Your task to perform on an android device: turn off notifications in google photos Image 0: 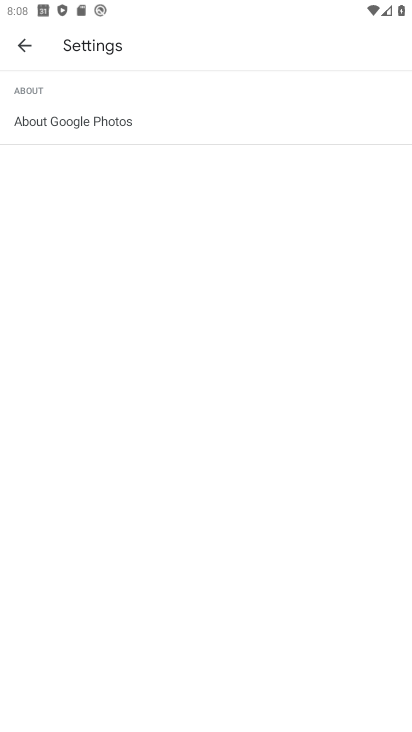
Step 0: press home button
Your task to perform on an android device: turn off notifications in google photos Image 1: 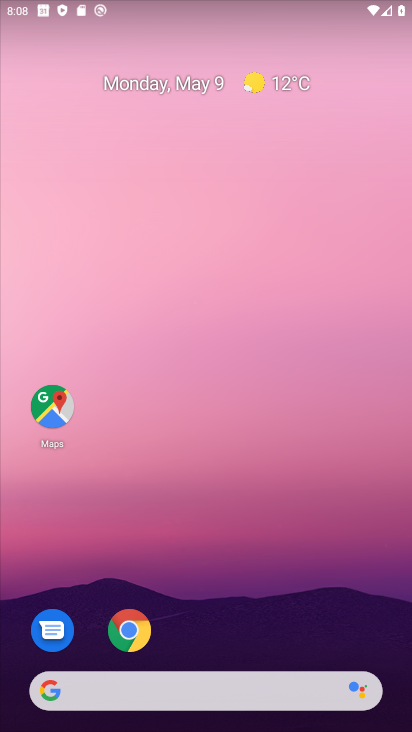
Step 1: drag from (221, 663) to (189, 174)
Your task to perform on an android device: turn off notifications in google photos Image 2: 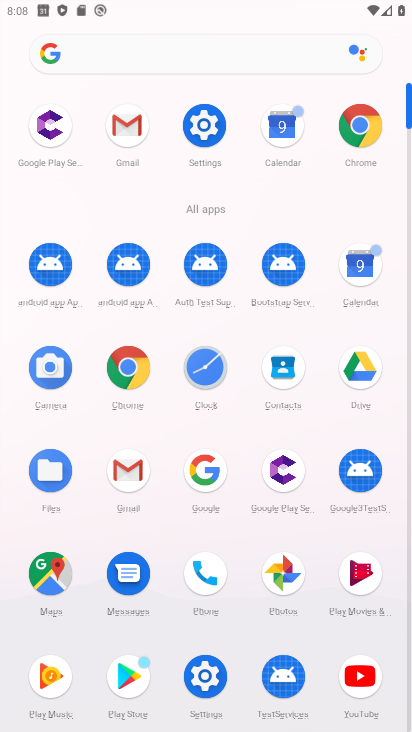
Step 2: click (267, 576)
Your task to perform on an android device: turn off notifications in google photos Image 3: 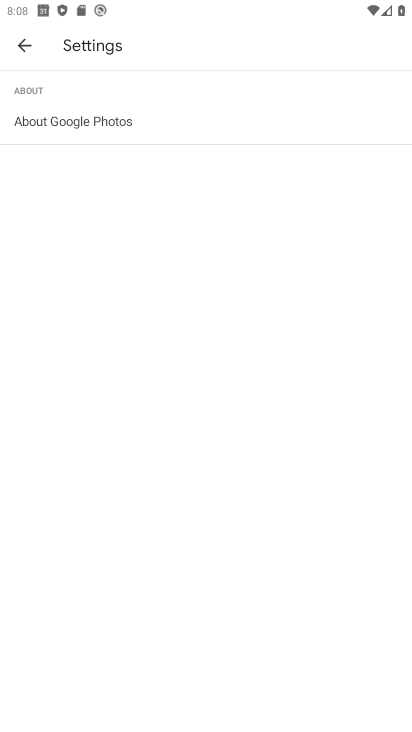
Step 3: click (13, 47)
Your task to perform on an android device: turn off notifications in google photos Image 4: 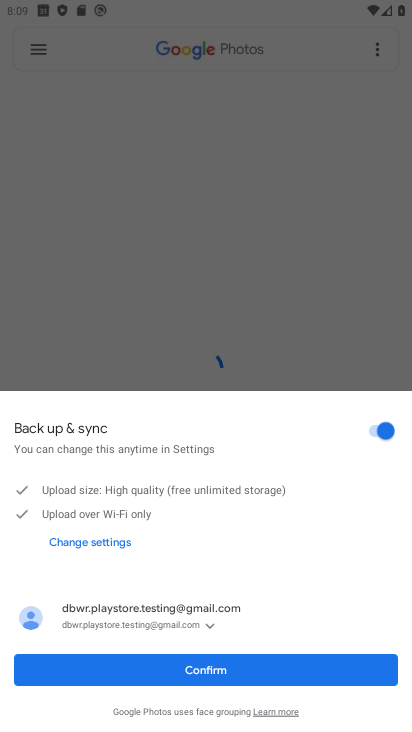
Step 4: click (207, 673)
Your task to perform on an android device: turn off notifications in google photos Image 5: 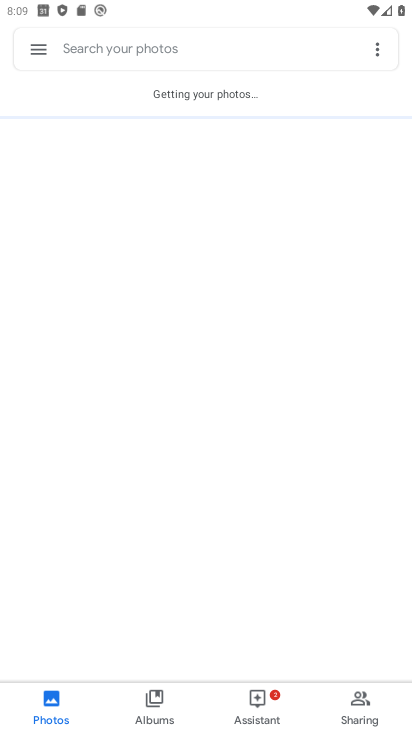
Step 5: click (36, 51)
Your task to perform on an android device: turn off notifications in google photos Image 6: 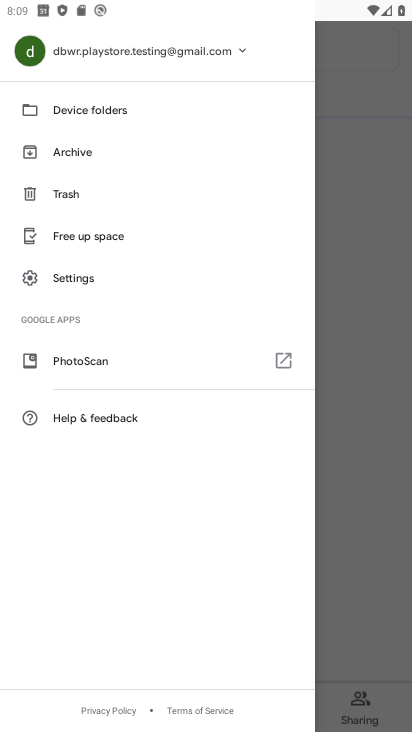
Step 6: click (93, 276)
Your task to perform on an android device: turn off notifications in google photos Image 7: 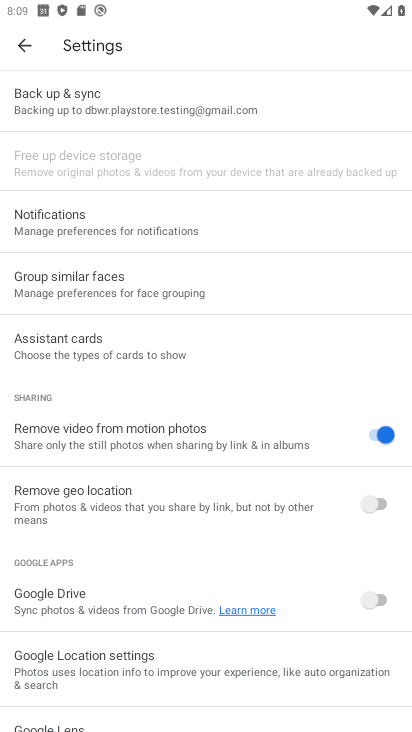
Step 7: click (92, 218)
Your task to perform on an android device: turn off notifications in google photos Image 8: 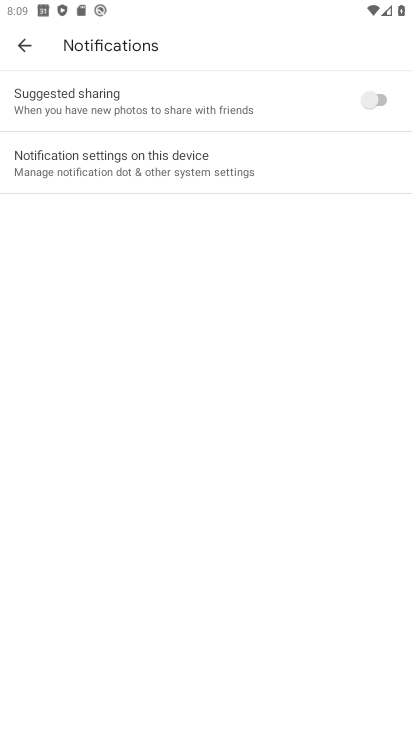
Step 8: click (135, 155)
Your task to perform on an android device: turn off notifications in google photos Image 9: 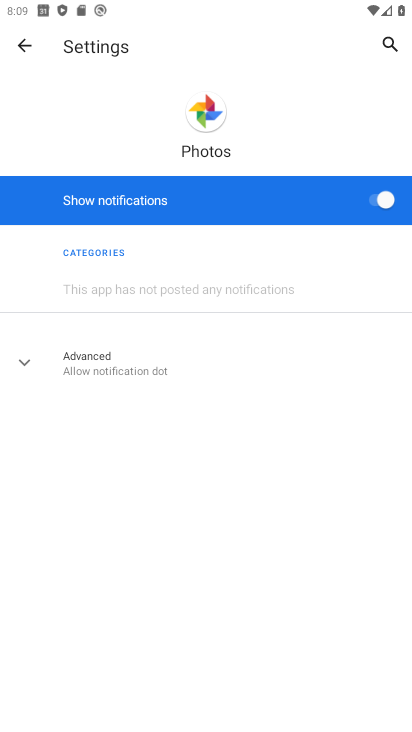
Step 9: click (379, 208)
Your task to perform on an android device: turn off notifications in google photos Image 10: 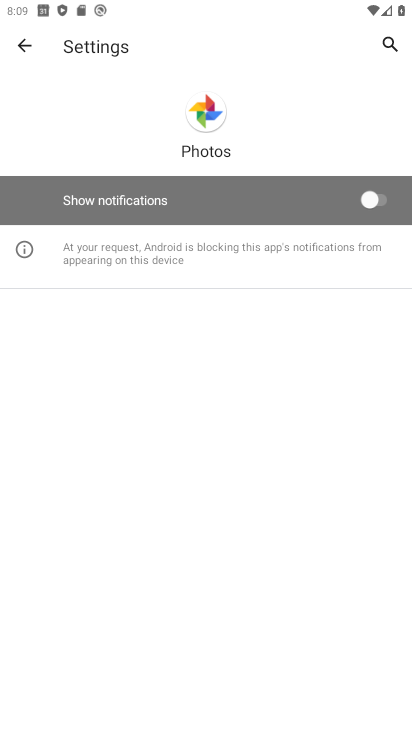
Step 10: task complete